Your task to perform on an android device: Open eBay Image 0: 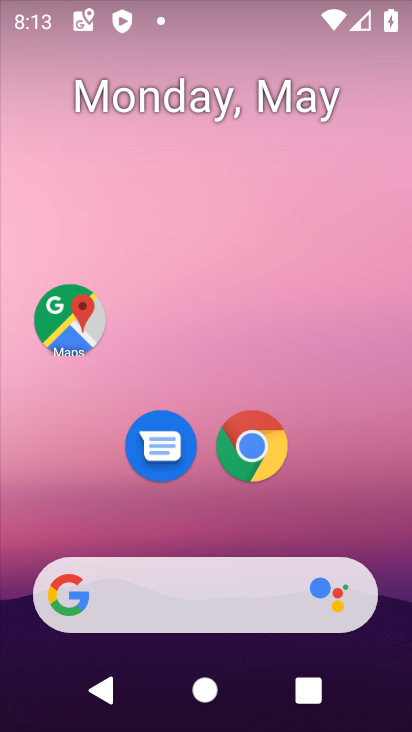
Step 0: click (267, 426)
Your task to perform on an android device: Open eBay Image 1: 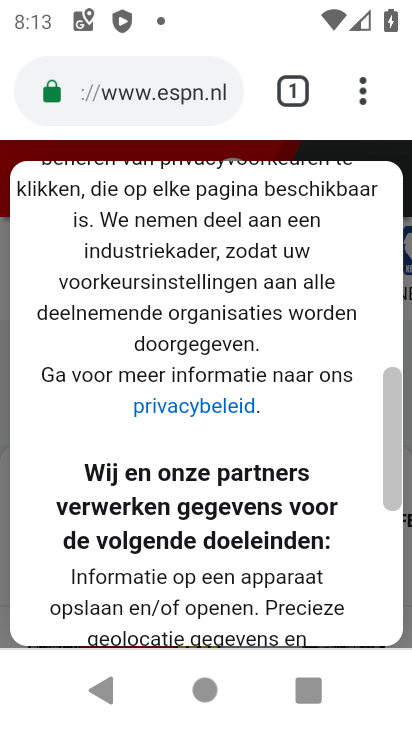
Step 1: click (207, 109)
Your task to perform on an android device: Open eBay Image 2: 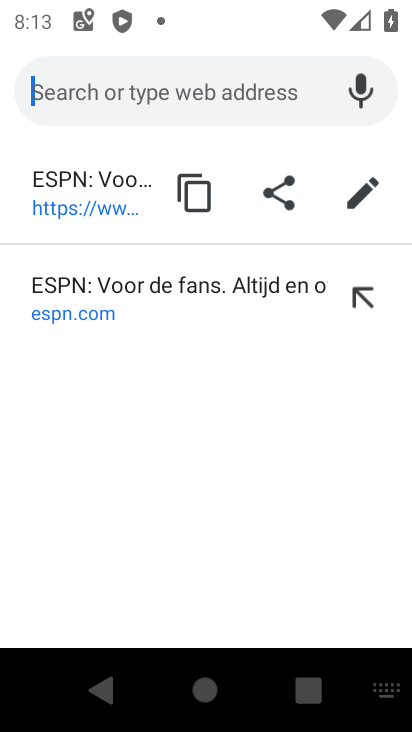
Step 2: type "ebay"
Your task to perform on an android device: Open eBay Image 3: 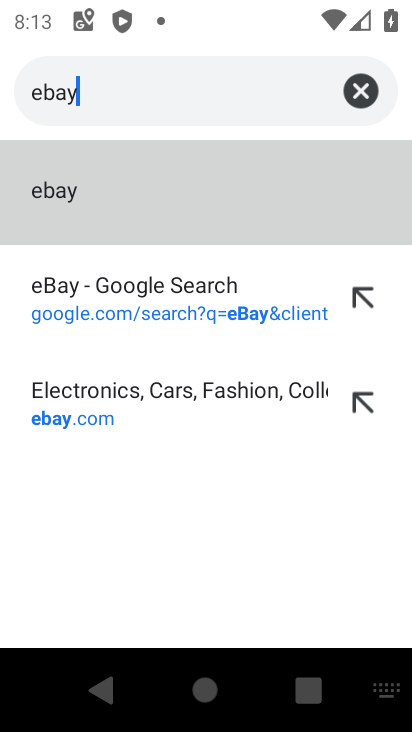
Step 3: click (251, 213)
Your task to perform on an android device: Open eBay Image 4: 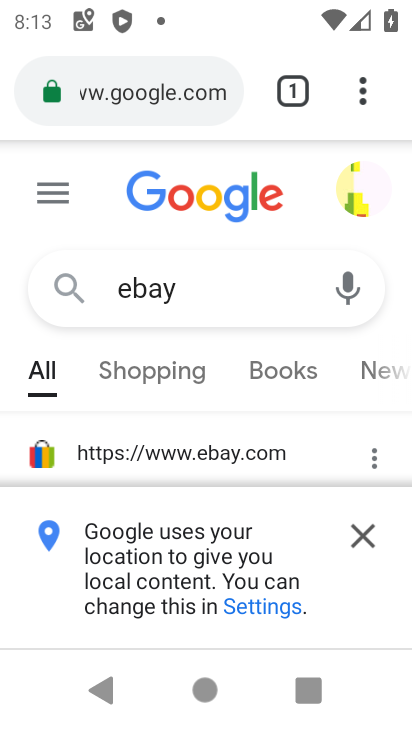
Step 4: drag from (266, 427) to (235, 76)
Your task to perform on an android device: Open eBay Image 5: 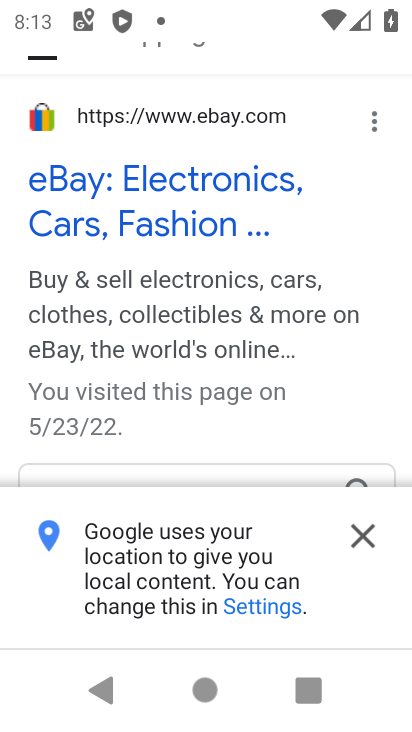
Step 5: click (194, 181)
Your task to perform on an android device: Open eBay Image 6: 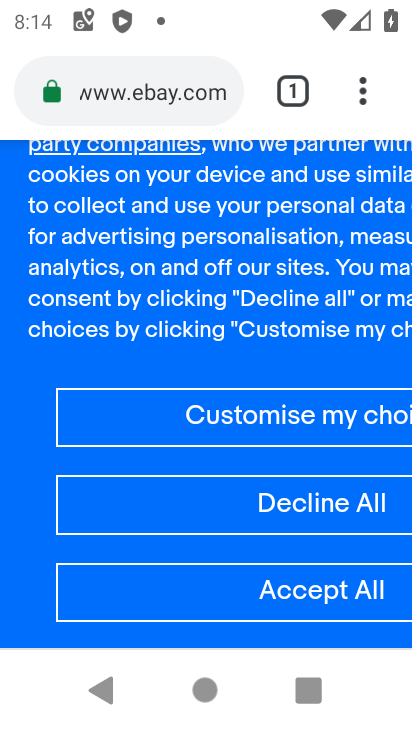
Step 6: task complete